Your task to perform on an android device: Open Google Maps Image 0: 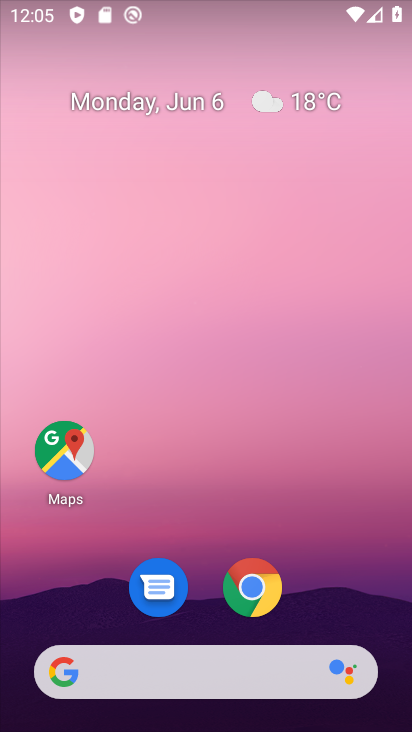
Step 0: drag from (294, 552) to (276, 180)
Your task to perform on an android device: Open Google Maps Image 1: 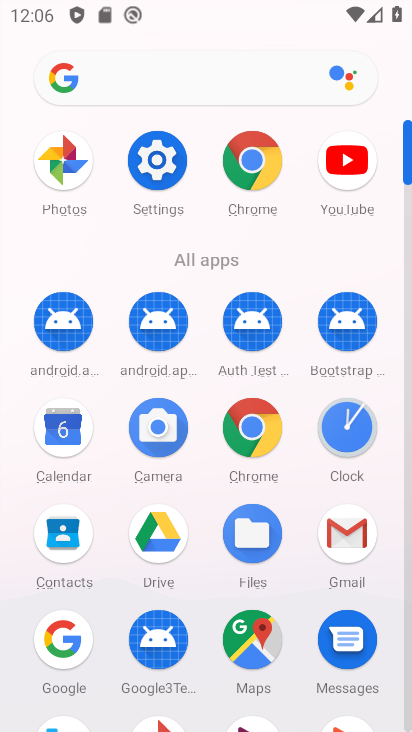
Step 1: click (255, 638)
Your task to perform on an android device: Open Google Maps Image 2: 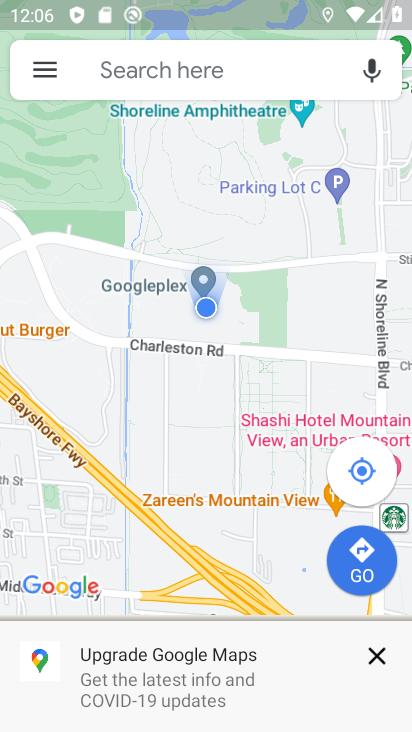
Step 2: task complete